Your task to perform on an android device: Empty the shopping cart on bestbuy.com. Add "panasonic triple a" to the cart on bestbuy.com Image 0: 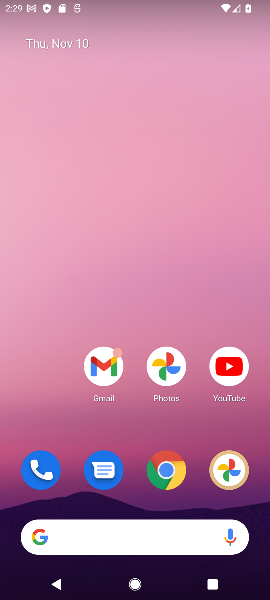
Step 0: click (168, 474)
Your task to perform on an android device: Empty the shopping cart on bestbuy.com. Add "panasonic triple a" to the cart on bestbuy.com Image 1: 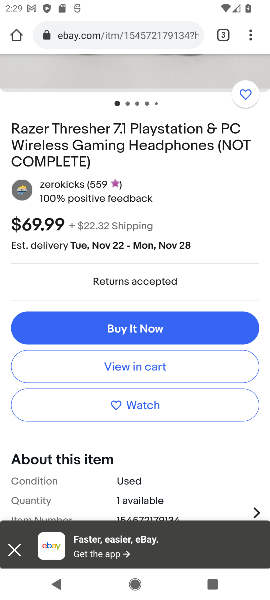
Step 1: click (220, 35)
Your task to perform on an android device: Empty the shopping cart on bestbuy.com. Add "panasonic triple a" to the cart on bestbuy.com Image 2: 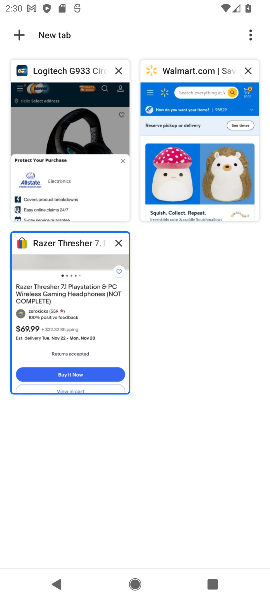
Step 2: click (16, 34)
Your task to perform on an android device: Empty the shopping cart on bestbuy.com. Add "panasonic triple a" to the cart on bestbuy.com Image 3: 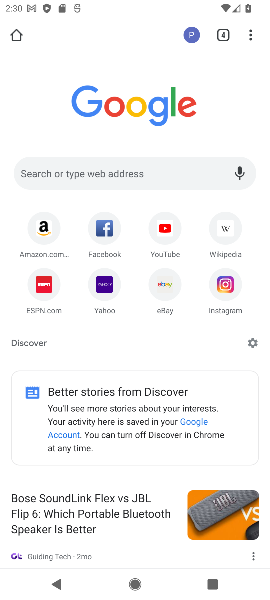
Step 3: click (124, 157)
Your task to perform on an android device: Empty the shopping cart on bestbuy.com. Add "panasonic triple a" to the cart on bestbuy.com Image 4: 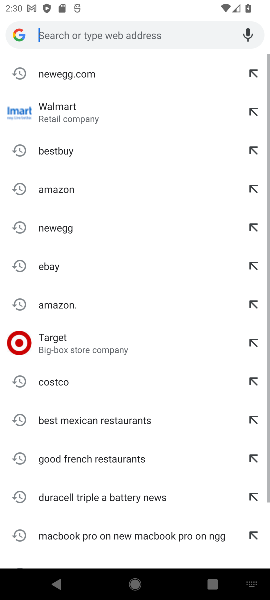
Step 4: click (39, 152)
Your task to perform on an android device: Empty the shopping cart on bestbuy.com. Add "panasonic triple a" to the cart on bestbuy.com Image 5: 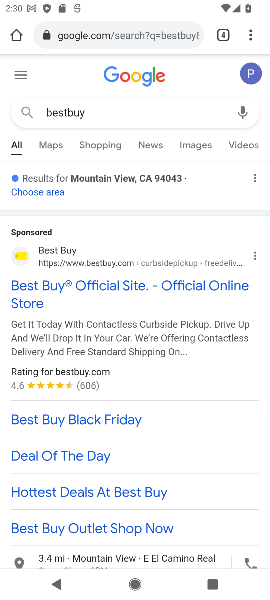
Step 5: drag from (79, 325) to (127, 8)
Your task to perform on an android device: Empty the shopping cart on bestbuy.com. Add "panasonic triple a" to the cart on bestbuy.com Image 6: 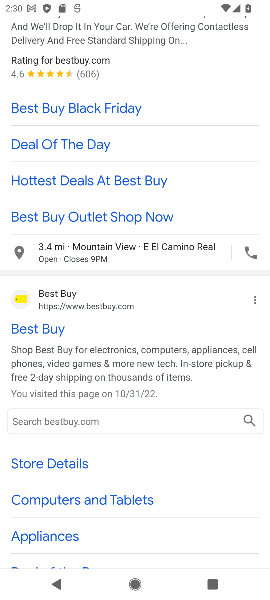
Step 6: click (36, 417)
Your task to perform on an android device: Empty the shopping cart on bestbuy.com. Add "panasonic triple a" to the cart on bestbuy.com Image 7: 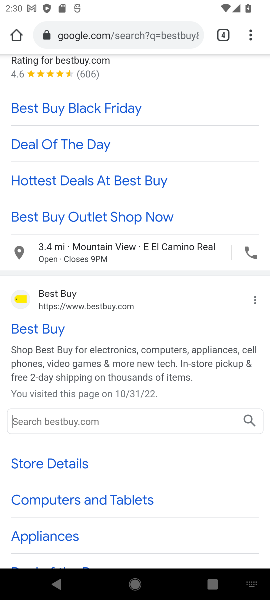
Step 7: type "panasonic triple a"
Your task to perform on an android device: Empty the shopping cart on bestbuy.com. Add "panasonic triple a" to the cart on bestbuy.com Image 8: 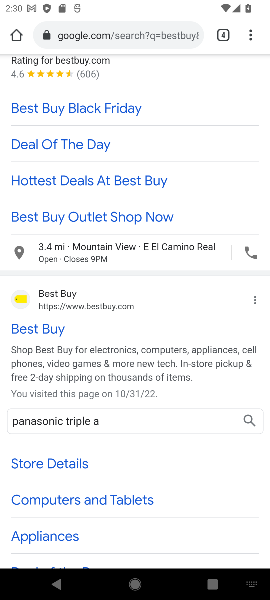
Step 8: click (249, 417)
Your task to perform on an android device: Empty the shopping cart on bestbuy.com. Add "panasonic triple a" to the cart on bestbuy.com Image 9: 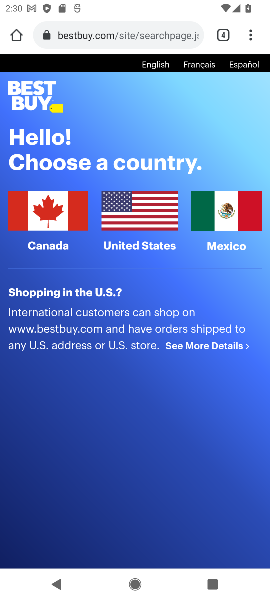
Step 9: click (130, 209)
Your task to perform on an android device: Empty the shopping cart on bestbuy.com. Add "panasonic triple a" to the cart on bestbuy.com Image 10: 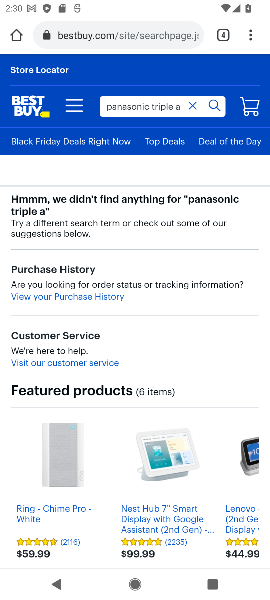
Step 10: drag from (97, 493) to (150, 165)
Your task to perform on an android device: Empty the shopping cart on bestbuy.com. Add "panasonic triple a" to the cart on bestbuy.com Image 11: 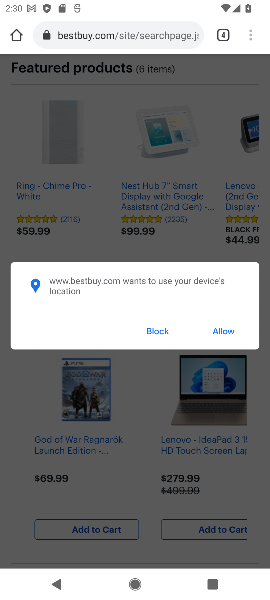
Step 11: drag from (128, 516) to (156, 82)
Your task to perform on an android device: Empty the shopping cart on bestbuy.com. Add "panasonic triple a" to the cart on bestbuy.com Image 12: 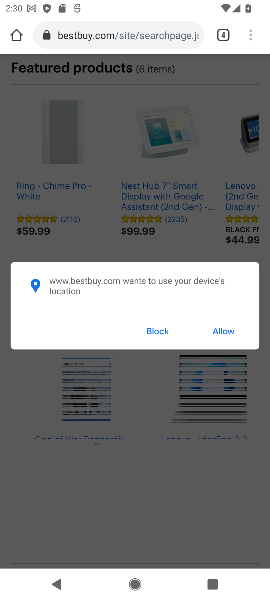
Step 12: click (158, 328)
Your task to perform on an android device: Empty the shopping cart on bestbuy.com. Add "panasonic triple a" to the cart on bestbuy.com Image 13: 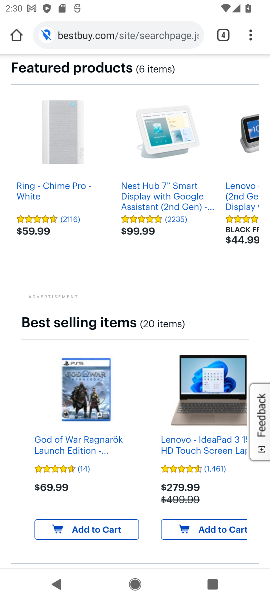
Step 13: drag from (120, 475) to (169, 228)
Your task to perform on an android device: Empty the shopping cart on bestbuy.com. Add "panasonic triple a" to the cart on bestbuy.com Image 14: 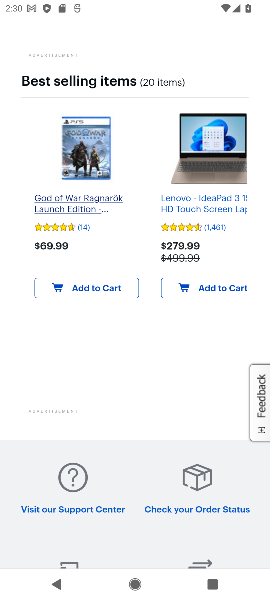
Step 14: drag from (131, 127) to (122, 377)
Your task to perform on an android device: Empty the shopping cart on bestbuy.com. Add "panasonic triple a" to the cart on bestbuy.com Image 15: 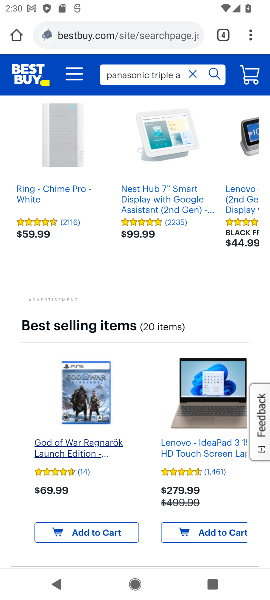
Step 15: drag from (202, 169) to (145, 475)
Your task to perform on an android device: Empty the shopping cart on bestbuy.com. Add "panasonic triple a" to the cart on bestbuy.com Image 16: 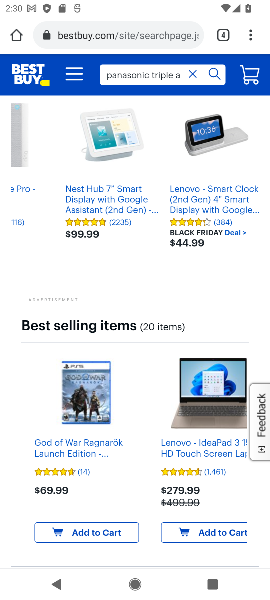
Step 16: drag from (162, 204) to (163, 568)
Your task to perform on an android device: Empty the shopping cart on bestbuy.com. Add "panasonic triple a" to the cart on bestbuy.com Image 17: 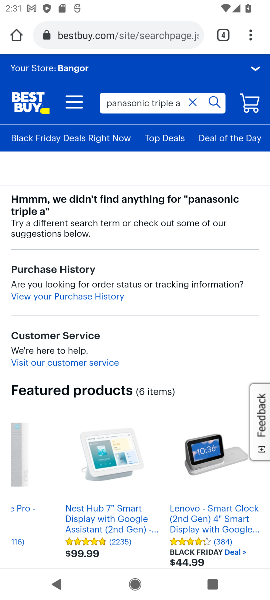
Step 17: click (212, 103)
Your task to perform on an android device: Empty the shopping cart on bestbuy.com. Add "panasonic triple a" to the cart on bestbuy.com Image 18: 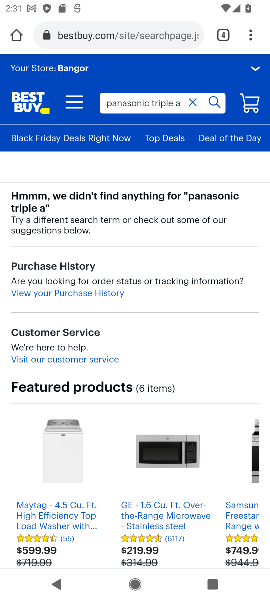
Step 18: click (171, 104)
Your task to perform on an android device: Empty the shopping cart on bestbuy.com. Add "panasonic triple a" to the cart on bestbuy.com Image 19: 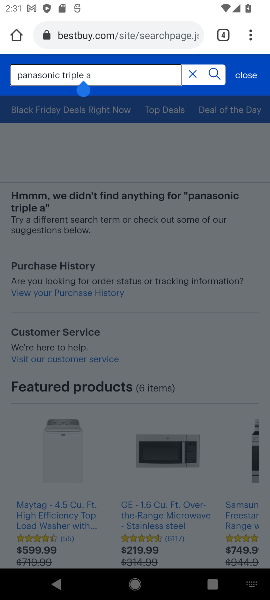
Step 19: click (190, 76)
Your task to perform on an android device: Empty the shopping cart on bestbuy.com. Add "panasonic triple a" to the cart on bestbuy.com Image 20: 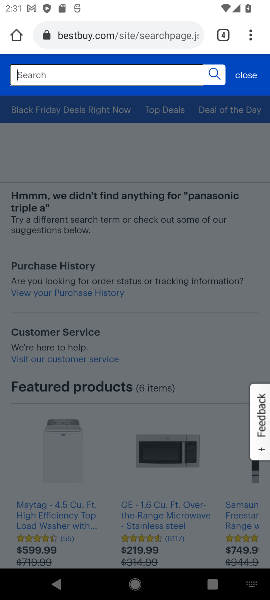
Step 20: type "panasonic triple a battery"
Your task to perform on an android device: Empty the shopping cart on bestbuy.com. Add "panasonic triple a" to the cart on bestbuy.com Image 21: 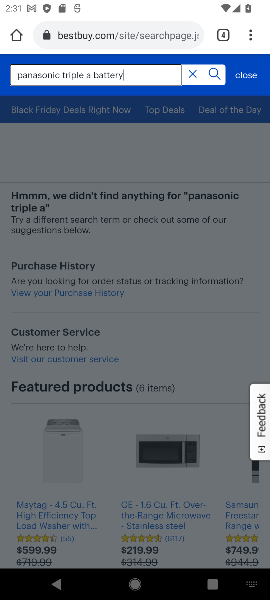
Step 21: click (214, 71)
Your task to perform on an android device: Empty the shopping cart on bestbuy.com. Add "panasonic triple a" to the cart on bestbuy.com Image 22: 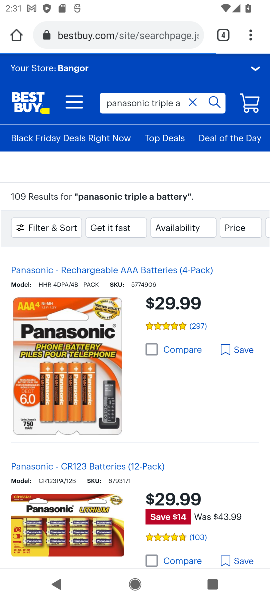
Step 22: click (182, 307)
Your task to perform on an android device: Empty the shopping cart on bestbuy.com. Add "panasonic triple a" to the cart on bestbuy.com Image 23: 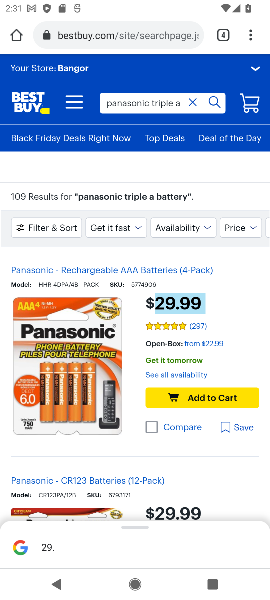
Step 23: click (201, 398)
Your task to perform on an android device: Empty the shopping cart on bestbuy.com. Add "panasonic triple a" to the cart on bestbuy.com Image 24: 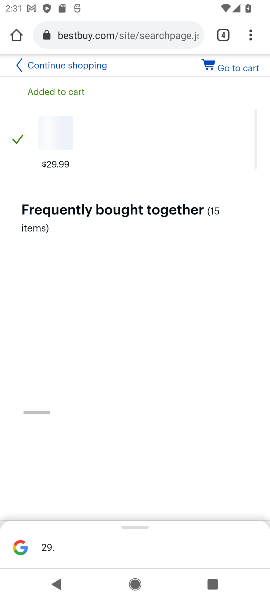
Step 24: task complete